Your task to perform on an android device: toggle javascript in the chrome app Image 0: 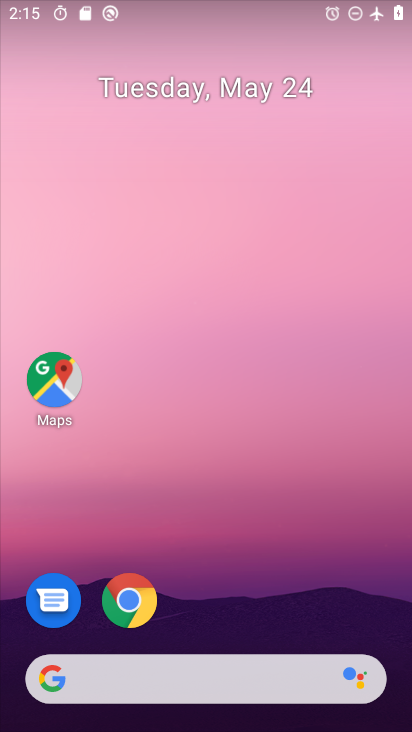
Step 0: click (135, 593)
Your task to perform on an android device: toggle javascript in the chrome app Image 1: 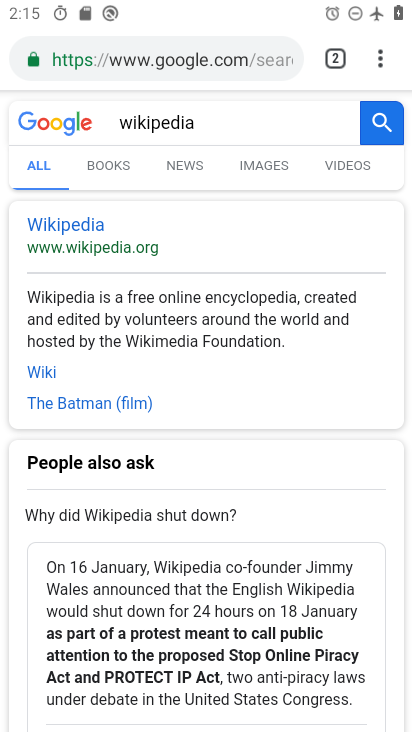
Step 1: click (377, 47)
Your task to perform on an android device: toggle javascript in the chrome app Image 2: 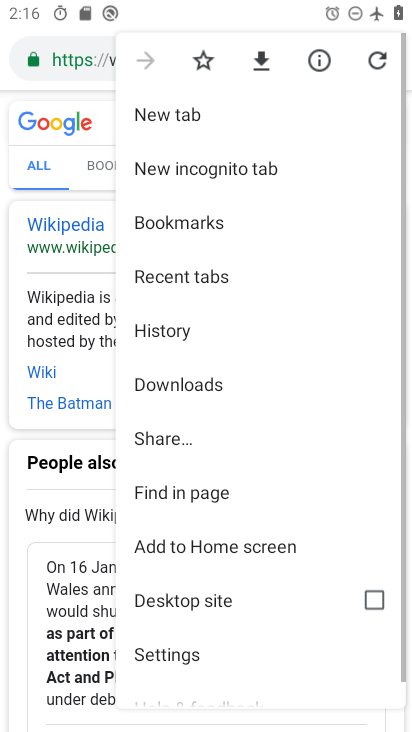
Step 2: drag from (237, 642) to (302, 267)
Your task to perform on an android device: toggle javascript in the chrome app Image 3: 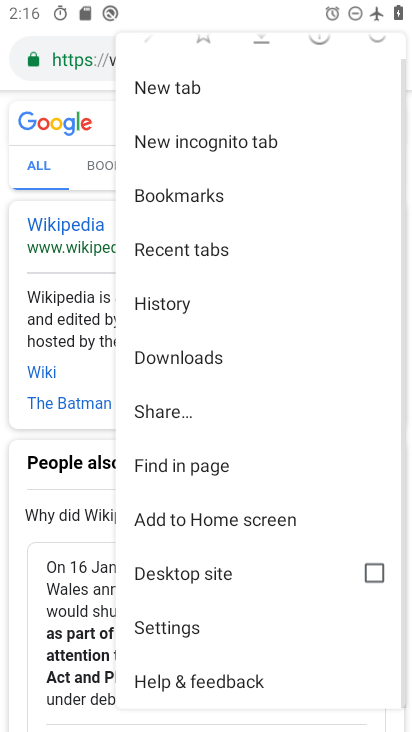
Step 3: click (205, 629)
Your task to perform on an android device: toggle javascript in the chrome app Image 4: 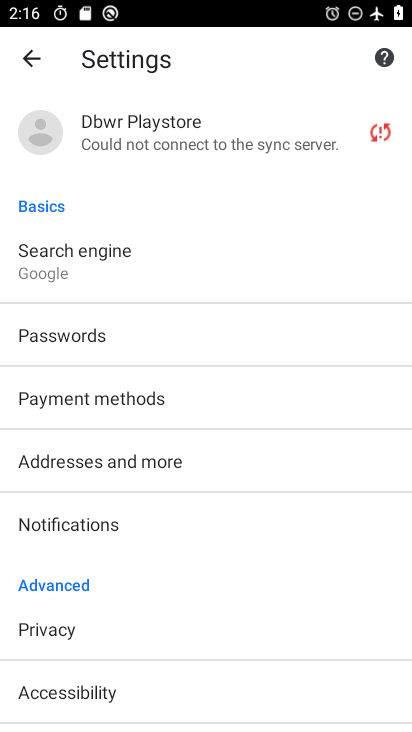
Step 4: drag from (143, 591) to (212, 104)
Your task to perform on an android device: toggle javascript in the chrome app Image 5: 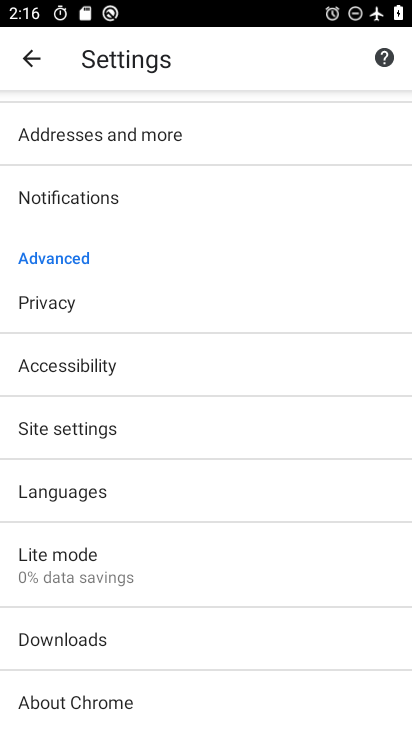
Step 5: click (83, 418)
Your task to perform on an android device: toggle javascript in the chrome app Image 6: 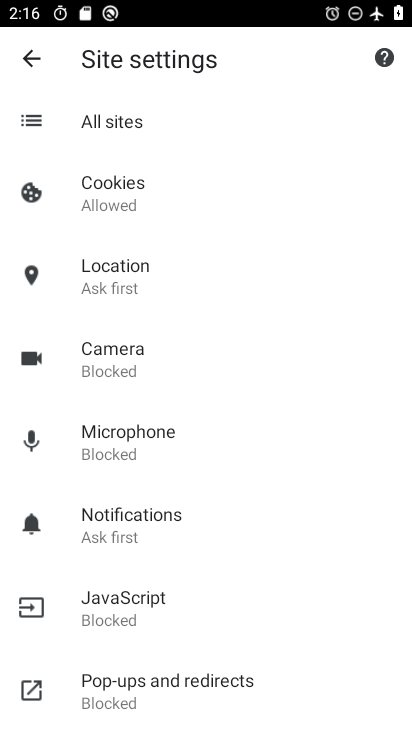
Step 6: click (161, 600)
Your task to perform on an android device: toggle javascript in the chrome app Image 7: 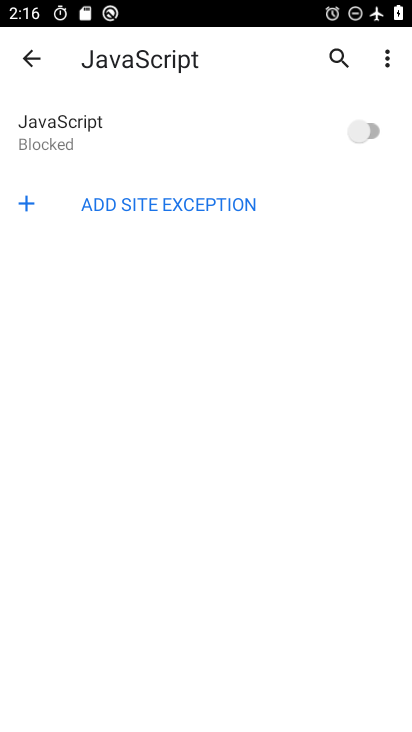
Step 7: click (377, 121)
Your task to perform on an android device: toggle javascript in the chrome app Image 8: 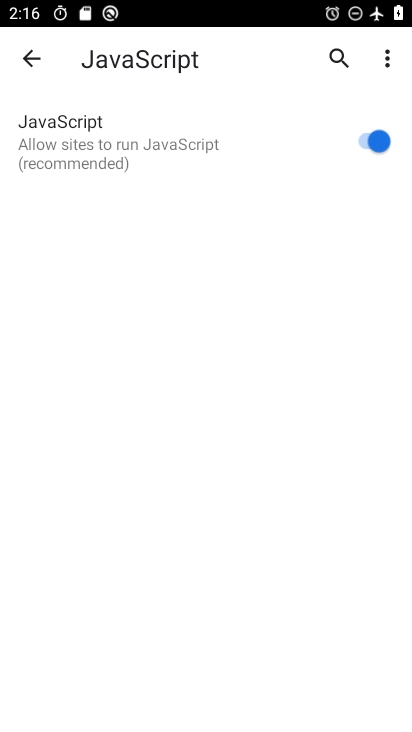
Step 8: task complete